Your task to perform on an android device: Open Google Maps and go to "Timeline" Image 0: 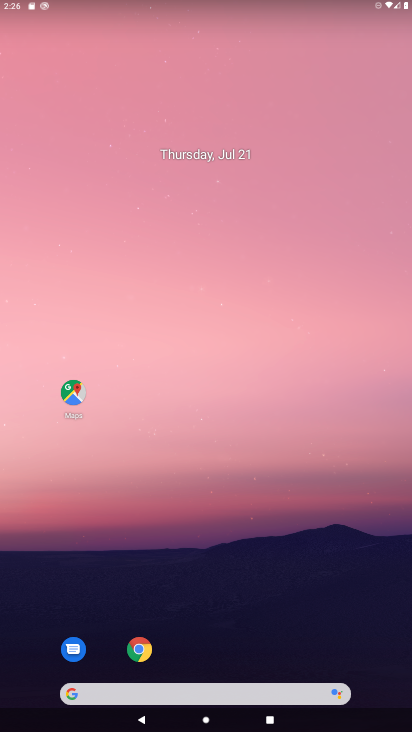
Step 0: drag from (314, 530) to (268, 16)
Your task to perform on an android device: Open Google Maps and go to "Timeline" Image 1: 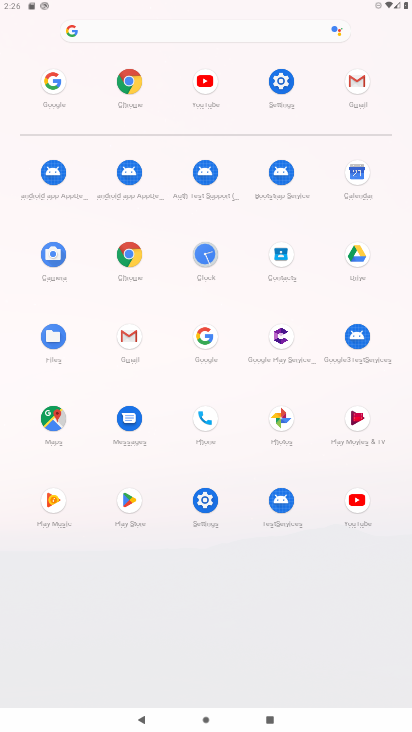
Step 1: click (55, 414)
Your task to perform on an android device: Open Google Maps and go to "Timeline" Image 2: 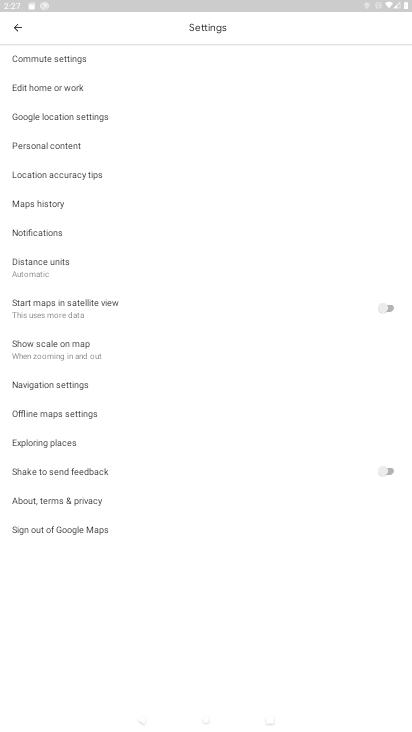
Step 2: click (23, 33)
Your task to perform on an android device: Open Google Maps and go to "Timeline" Image 3: 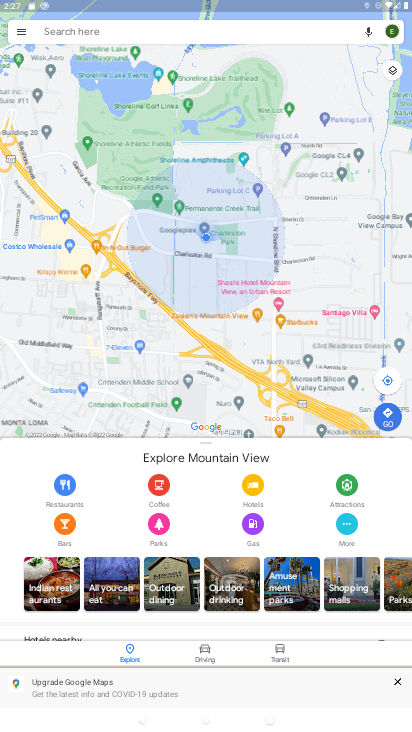
Step 3: click (23, 30)
Your task to perform on an android device: Open Google Maps and go to "Timeline" Image 4: 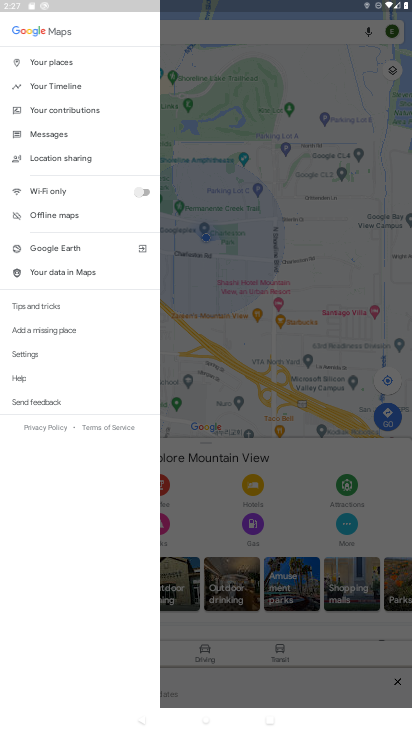
Step 4: click (47, 93)
Your task to perform on an android device: Open Google Maps and go to "Timeline" Image 5: 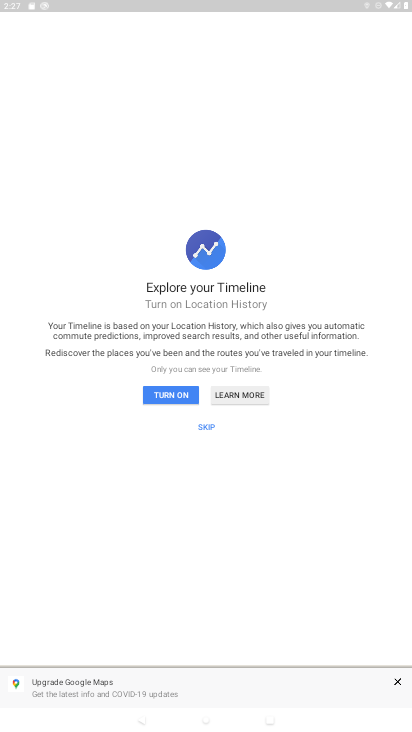
Step 5: task complete